Your task to perform on an android device: uninstall "Skype" Image 0: 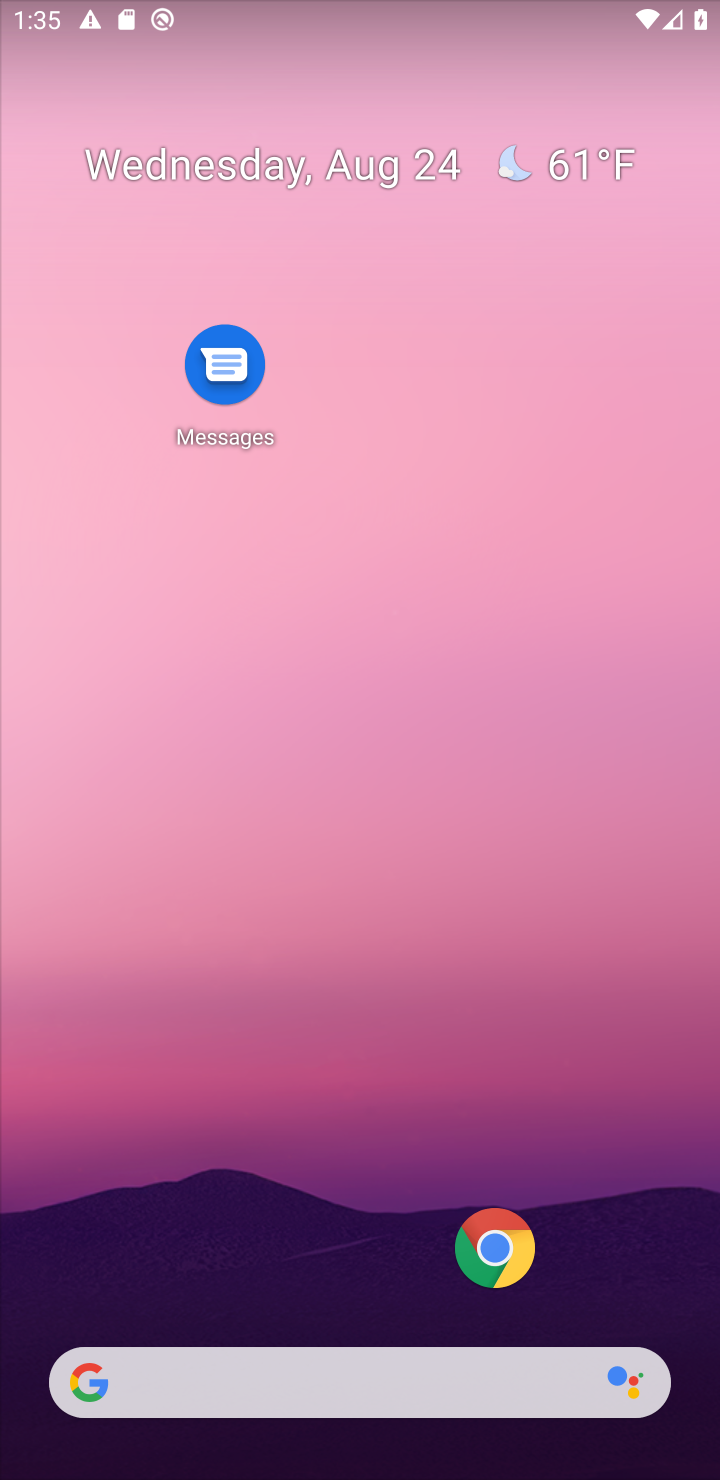
Step 0: drag from (318, 1229) to (315, 526)
Your task to perform on an android device: uninstall "Skype" Image 1: 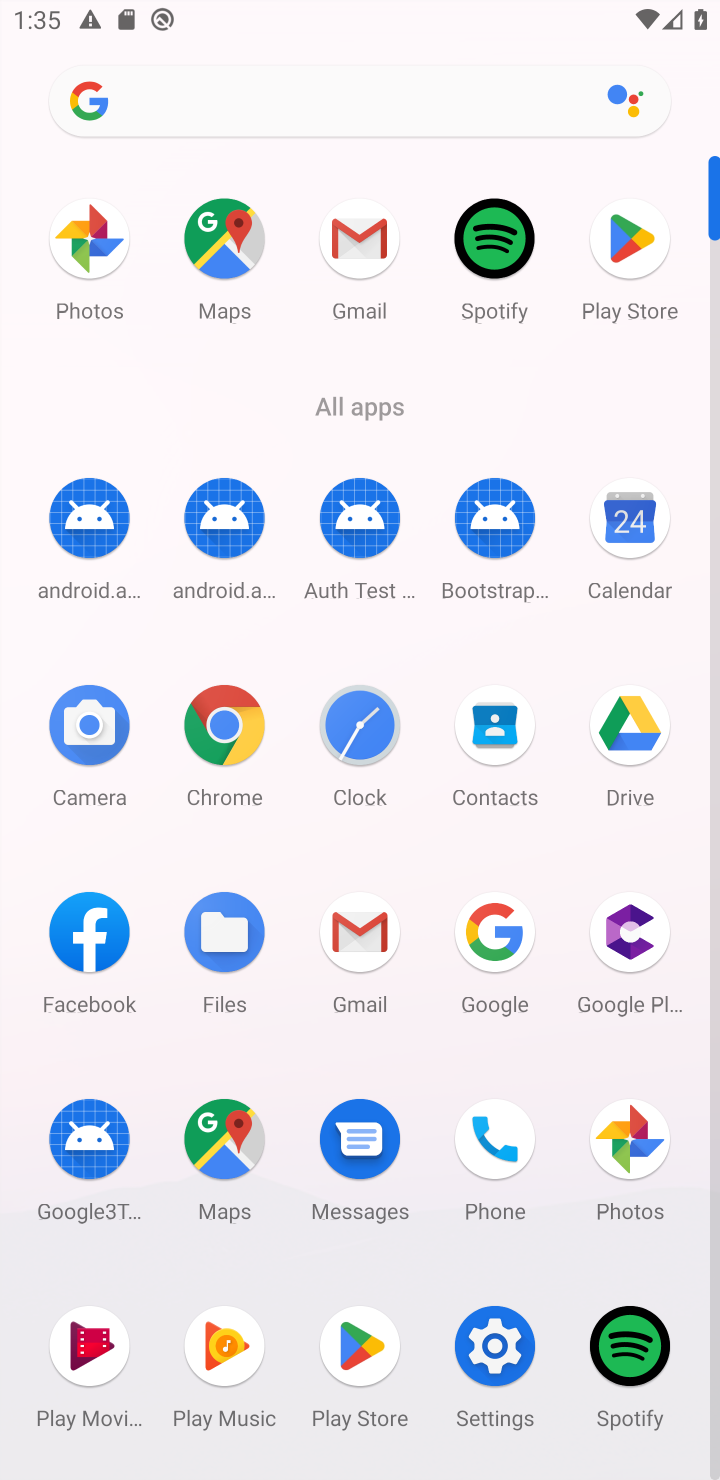
Step 1: click (640, 242)
Your task to perform on an android device: uninstall "Skype" Image 2: 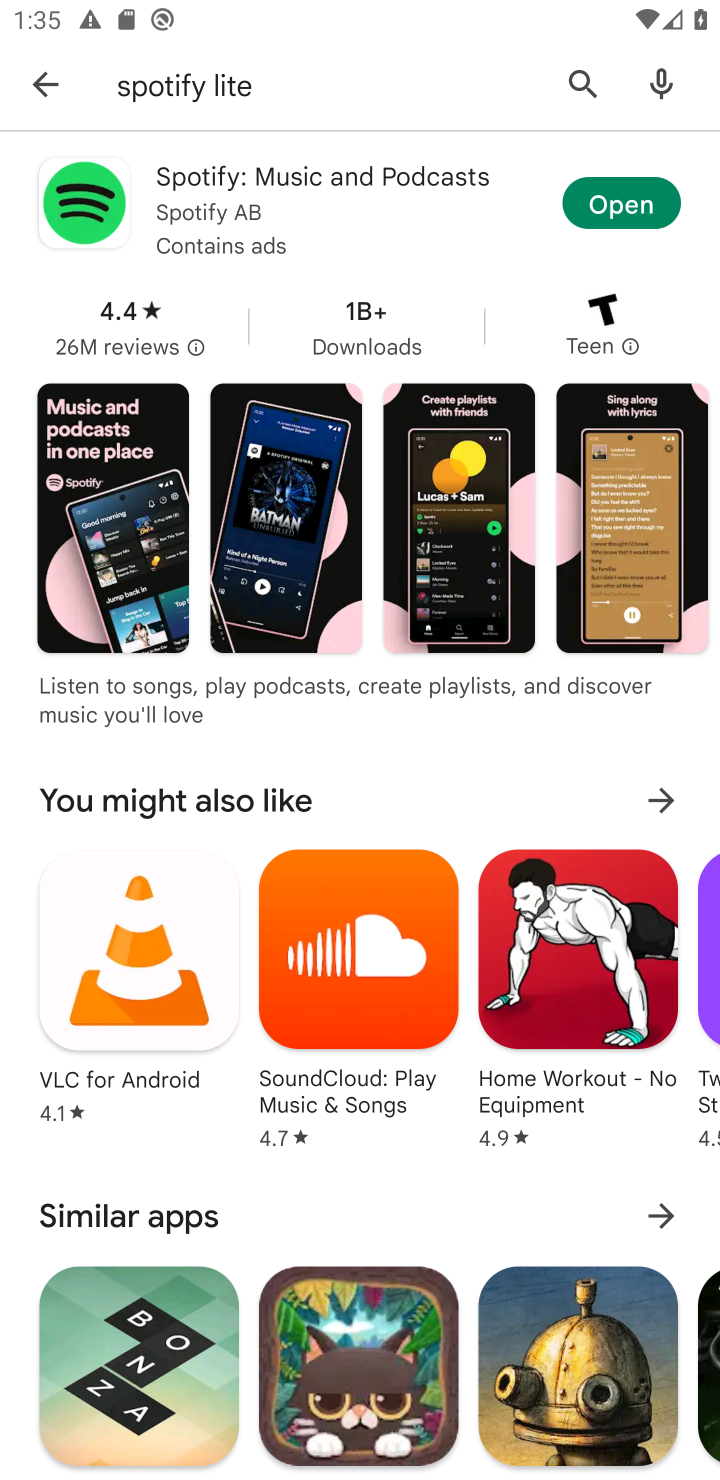
Step 2: click (24, 80)
Your task to perform on an android device: uninstall "Skype" Image 3: 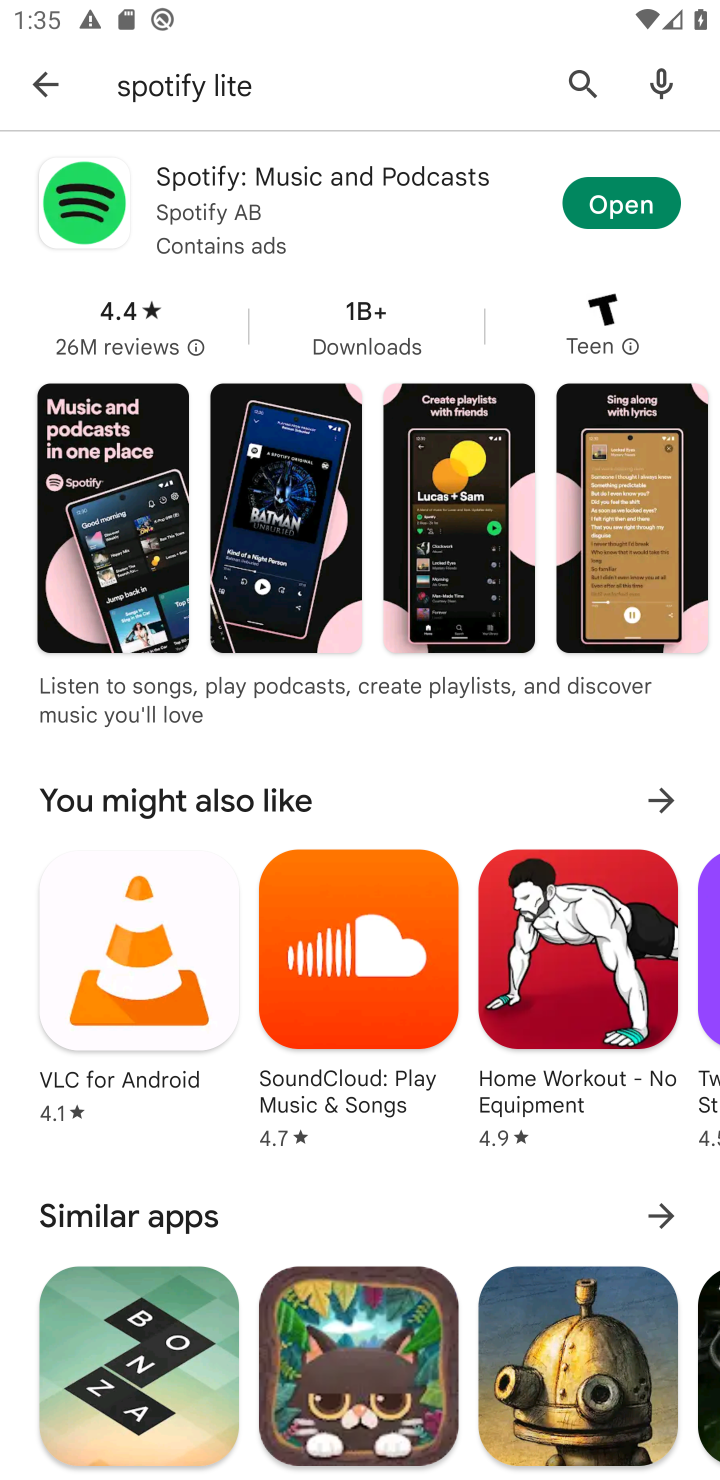
Step 3: click (592, 69)
Your task to perform on an android device: uninstall "Skype" Image 4: 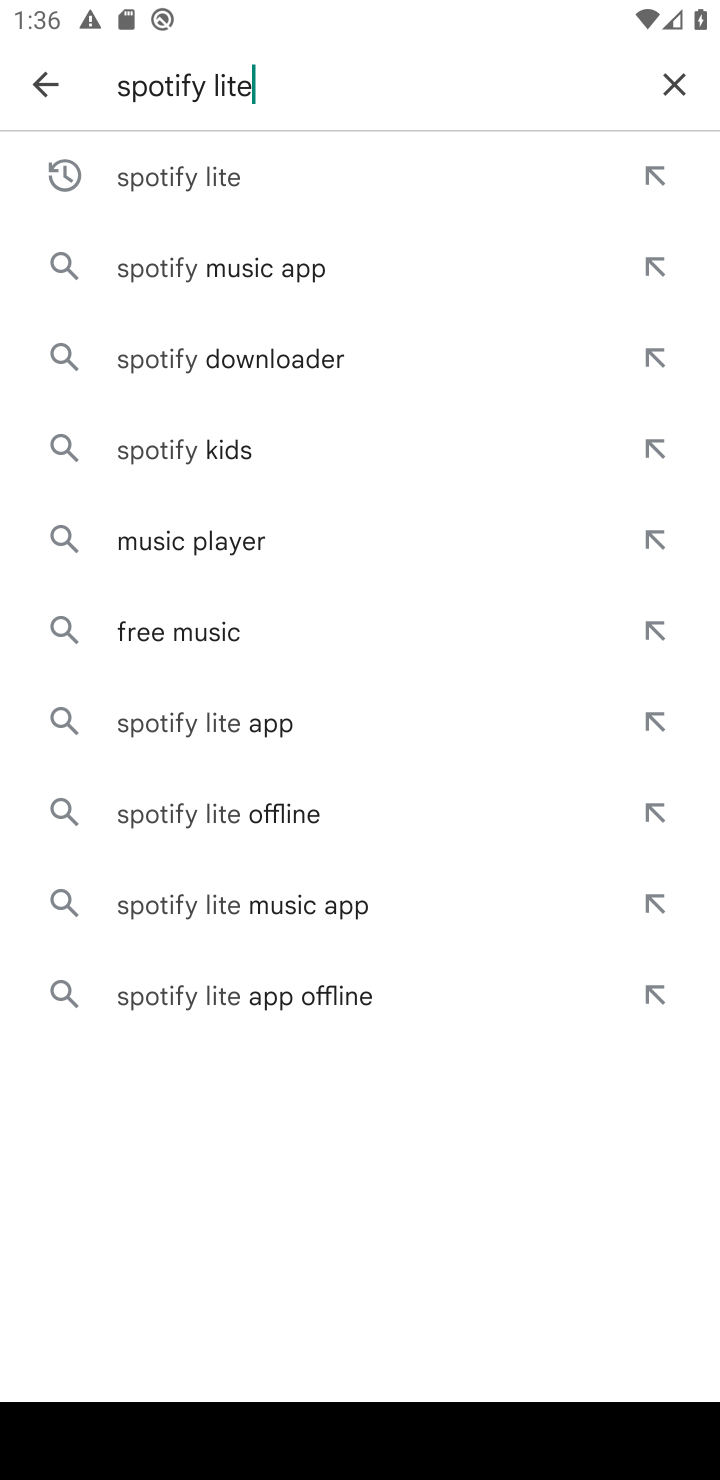
Step 4: click (662, 84)
Your task to perform on an android device: uninstall "Skype" Image 5: 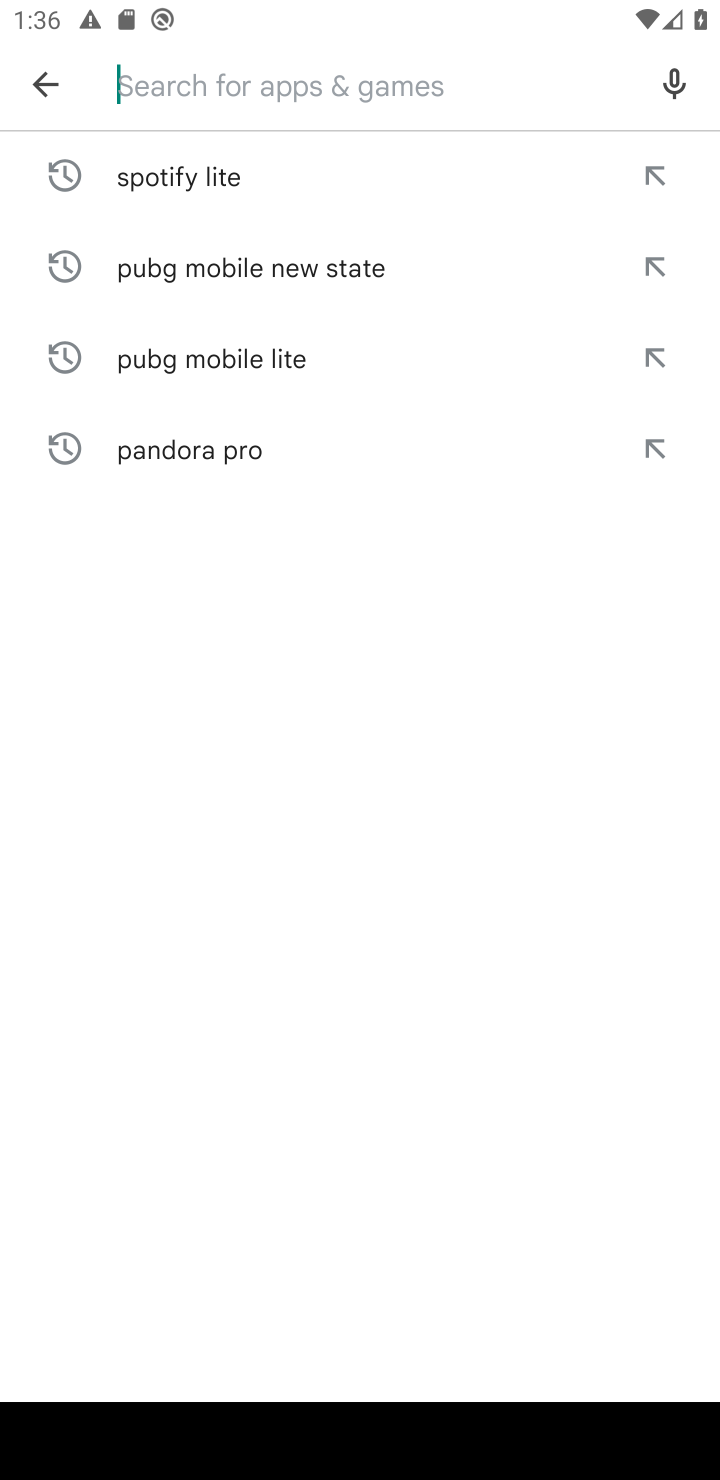
Step 5: click (268, 86)
Your task to perform on an android device: uninstall "Skype" Image 6: 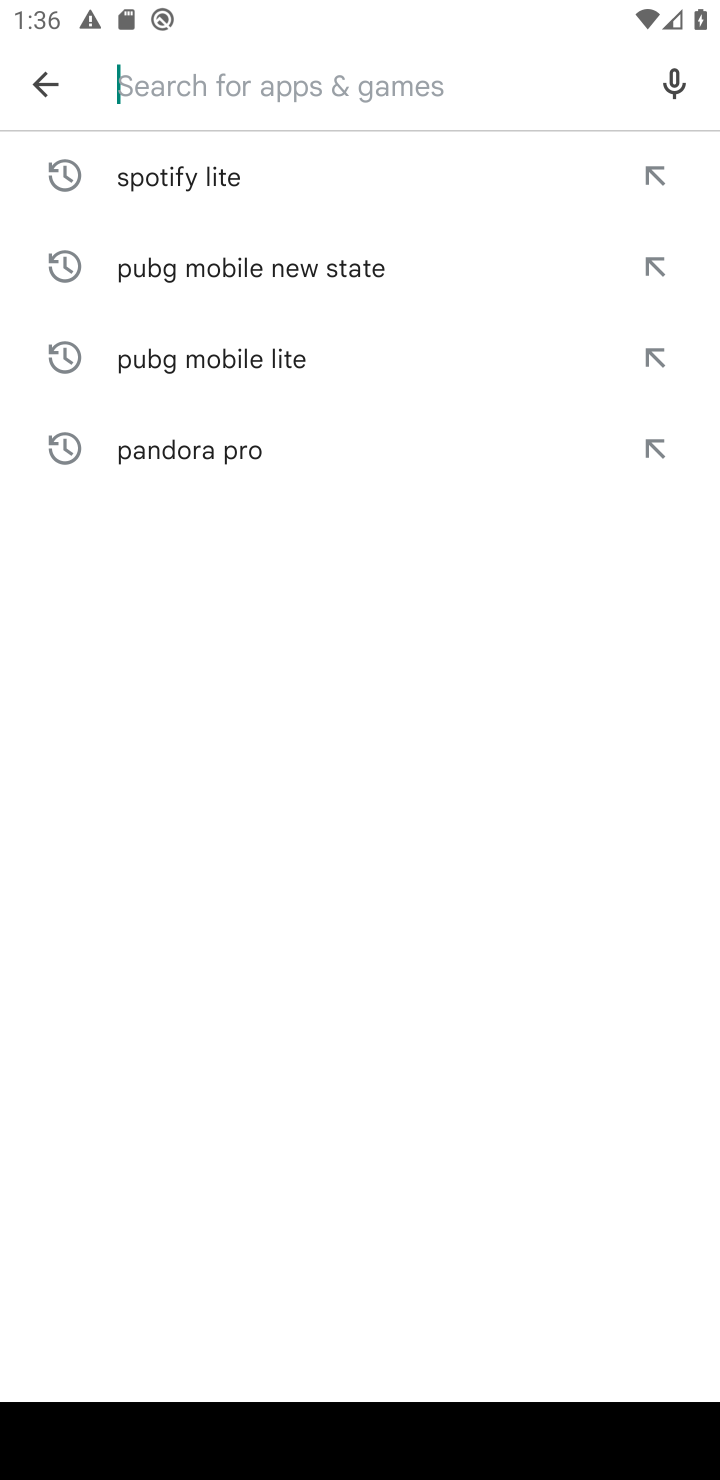
Step 6: type "skype "
Your task to perform on an android device: uninstall "Skype" Image 7: 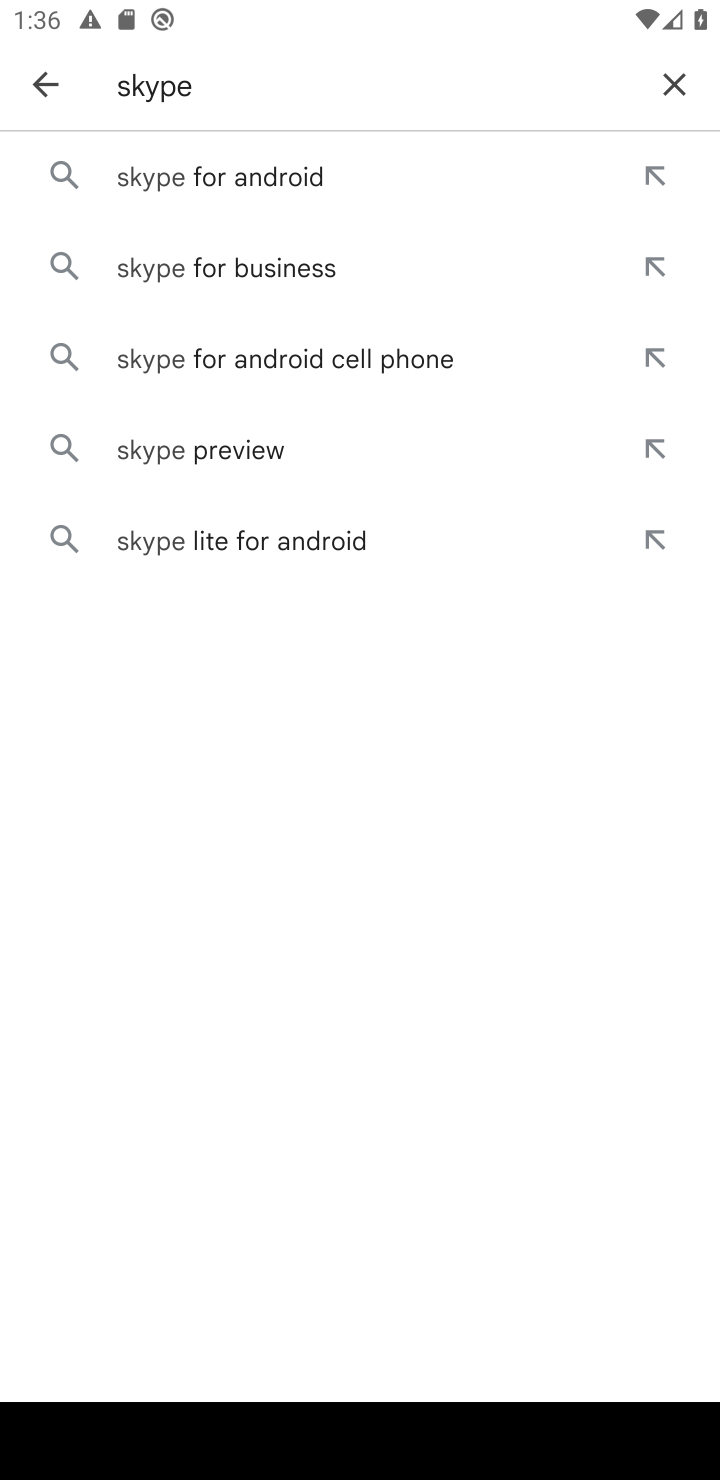
Step 7: click (148, 187)
Your task to perform on an android device: uninstall "Skype" Image 8: 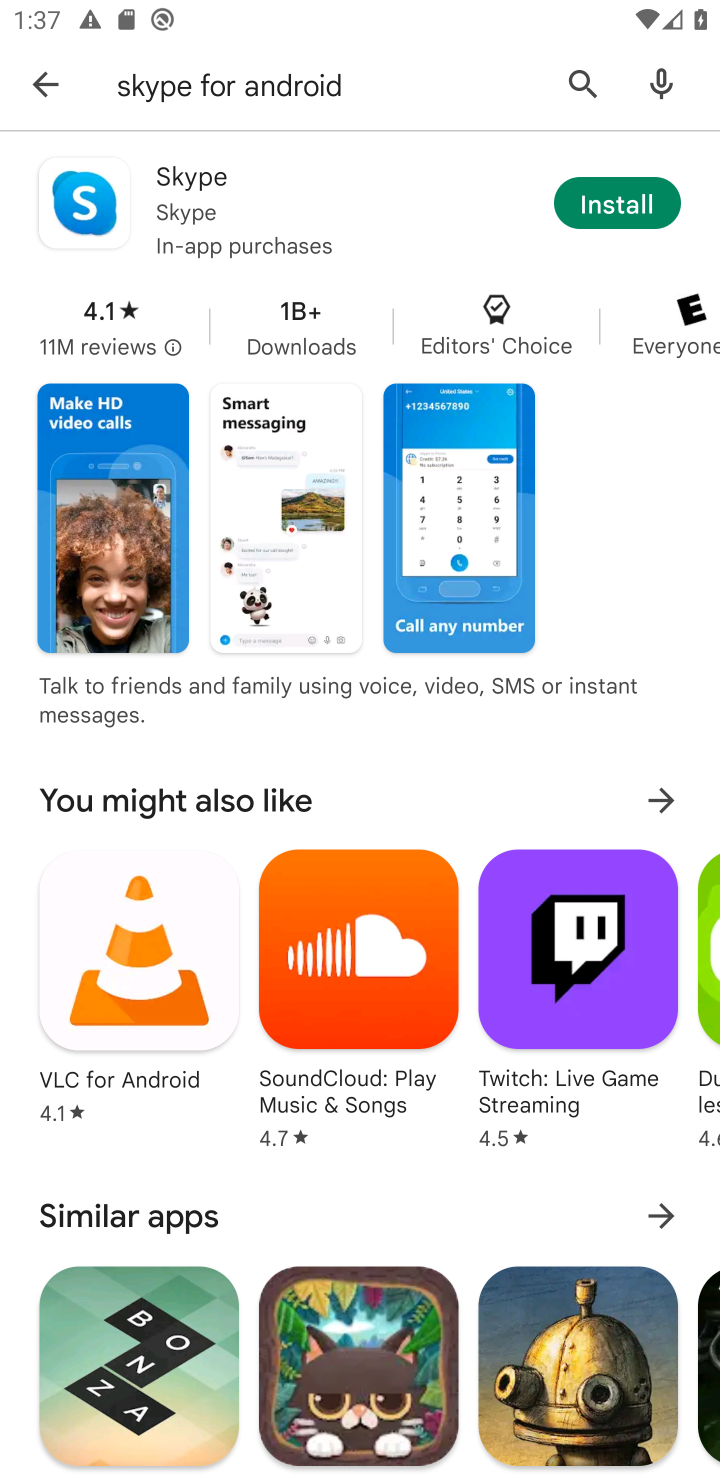
Step 8: task complete